Your task to perform on an android device: turn off improve location accuracy Image 0: 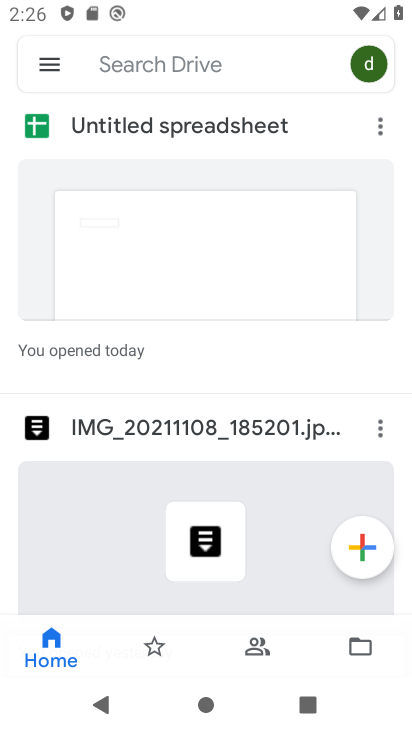
Step 0: press home button
Your task to perform on an android device: turn off improve location accuracy Image 1: 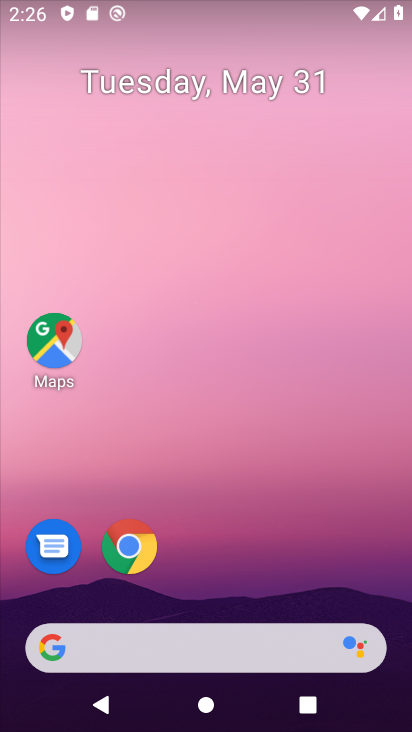
Step 1: drag from (254, 539) to (273, 8)
Your task to perform on an android device: turn off improve location accuracy Image 2: 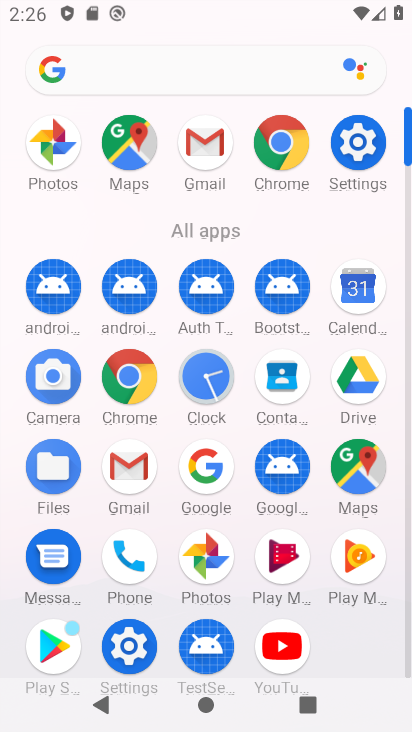
Step 2: click (343, 138)
Your task to perform on an android device: turn off improve location accuracy Image 3: 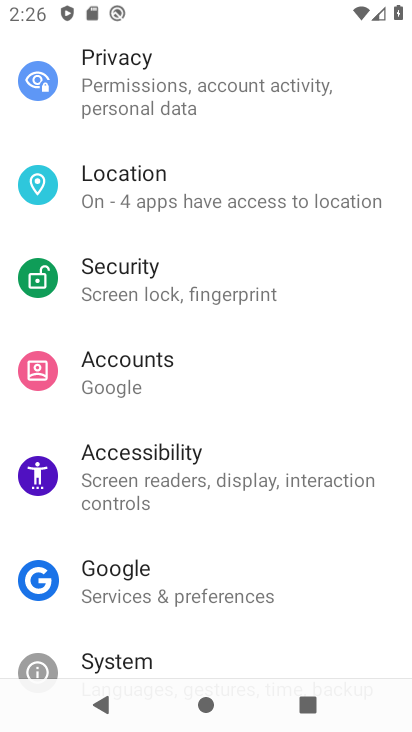
Step 3: click (255, 190)
Your task to perform on an android device: turn off improve location accuracy Image 4: 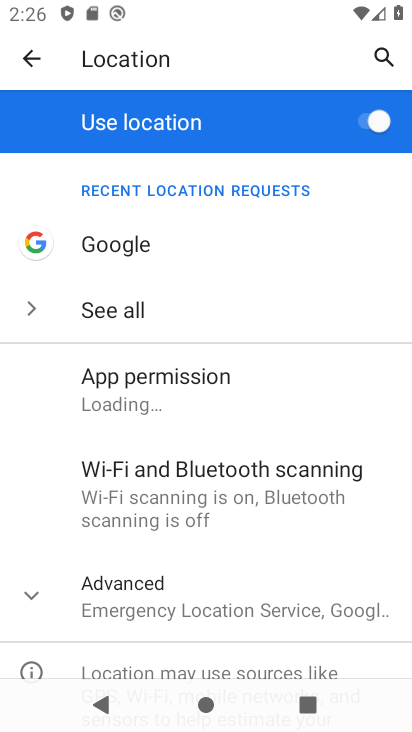
Step 4: click (30, 591)
Your task to perform on an android device: turn off improve location accuracy Image 5: 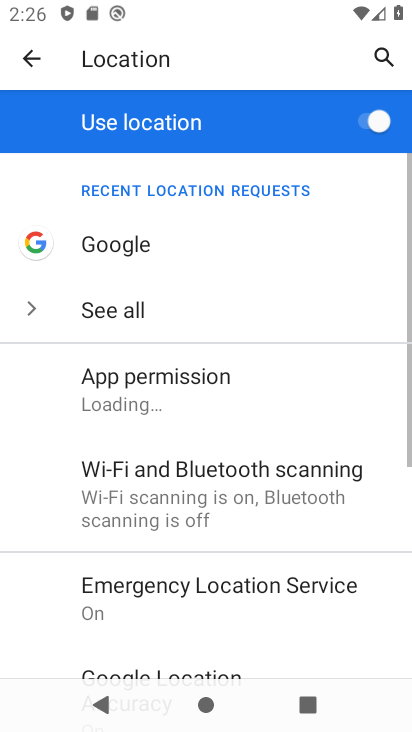
Step 5: drag from (254, 530) to (330, 113)
Your task to perform on an android device: turn off improve location accuracy Image 6: 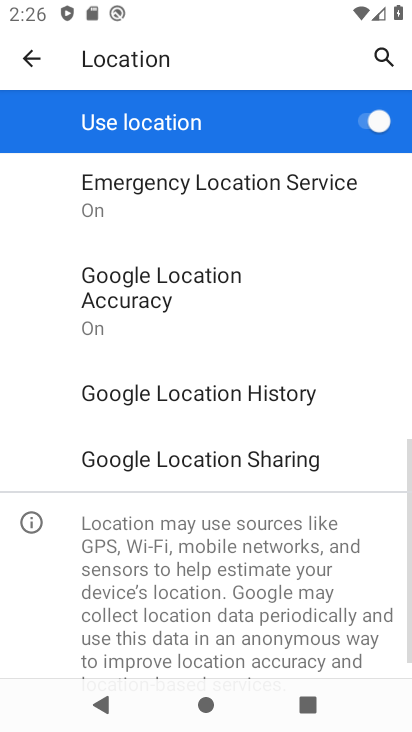
Step 6: drag from (267, 245) to (259, 313)
Your task to perform on an android device: turn off improve location accuracy Image 7: 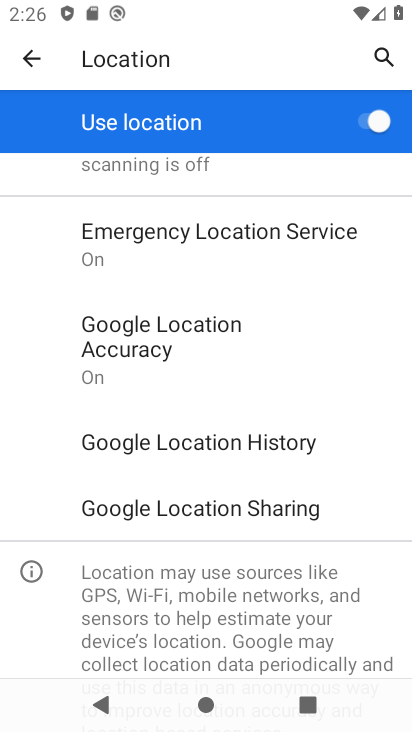
Step 7: click (209, 353)
Your task to perform on an android device: turn off improve location accuracy Image 8: 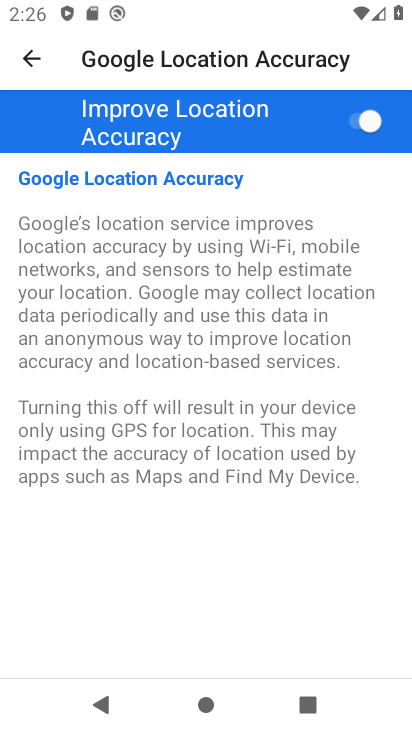
Step 8: click (370, 123)
Your task to perform on an android device: turn off improve location accuracy Image 9: 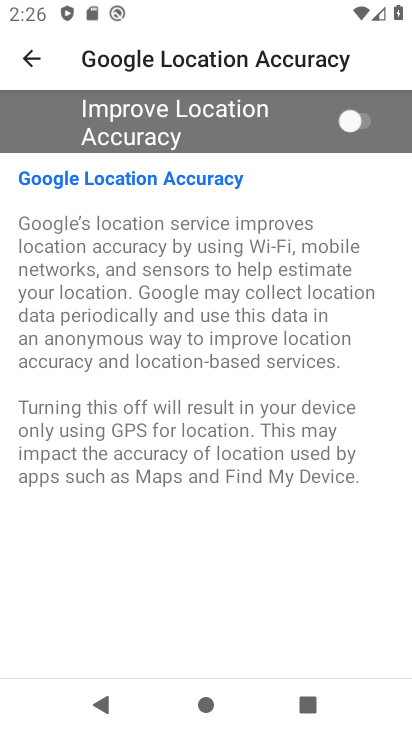
Step 9: task complete